Your task to perform on an android device: Open Youtube and go to "Your channel" Image 0: 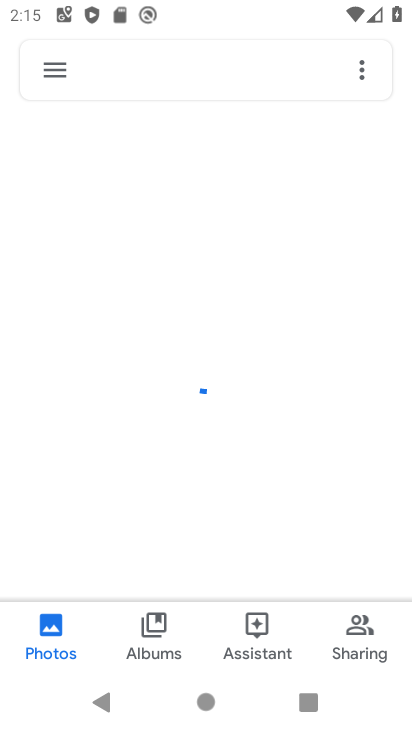
Step 0: press home button
Your task to perform on an android device: Open Youtube and go to "Your channel" Image 1: 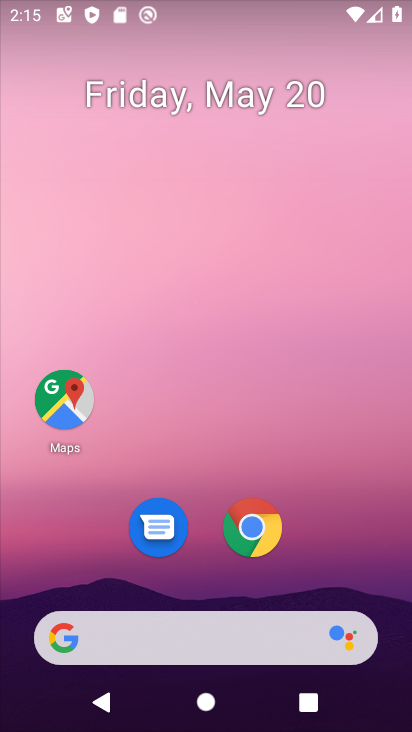
Step 1: drag from (267, 610) to (337, 195)
Your task to perform on an android device: Open Youtube and go to "Your channel" Image 2: 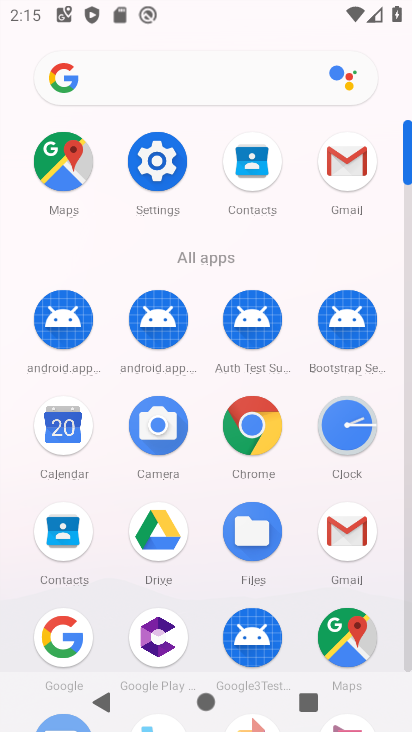
Step 2: drag from (246, 593) to (324, 114)
Your task to perform on an android device: Open Youtube and go to "Your channel" Image 3: 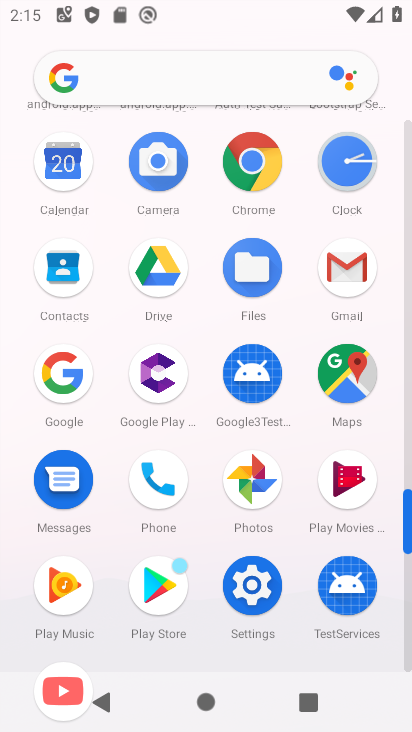
Step 3: click (51, 676)
Your task to perform on an android device: Open Youtube and go to "Your channel" Image 4: 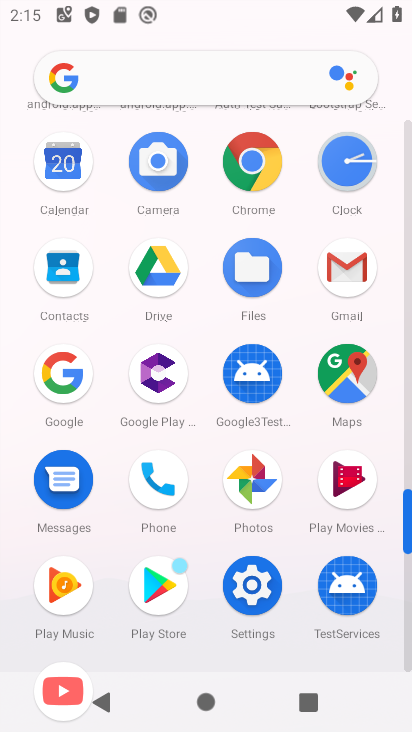
Step 4: click (74, 673)
Your task to perform on an android device: Open Youtube and go to "Your channel" Image 5: 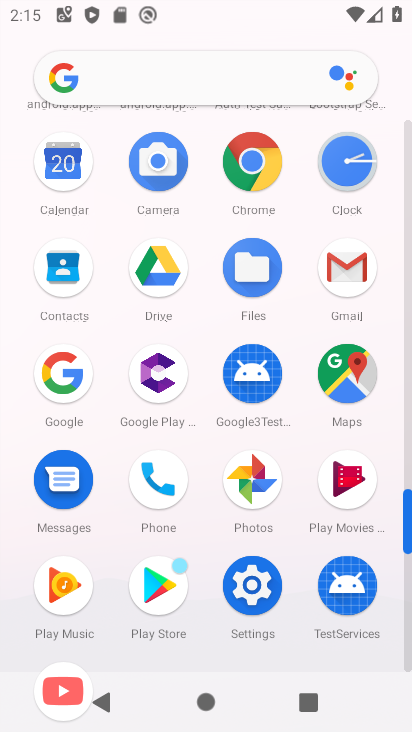
Step 5: click (71, 669)
Your task to perform on an android device: Open Youtube and go to "Your channel" Image 6: 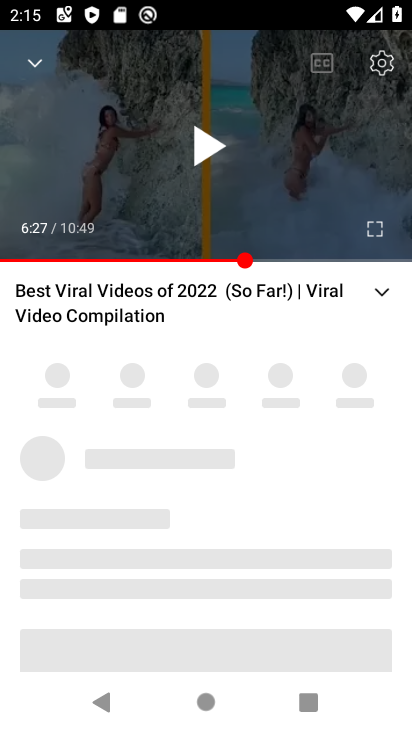
Step 6: drag from (275, 161) to (308, 538)
Your task to perform on an android device: Open Youtube and go to "Your channel" Image 7: 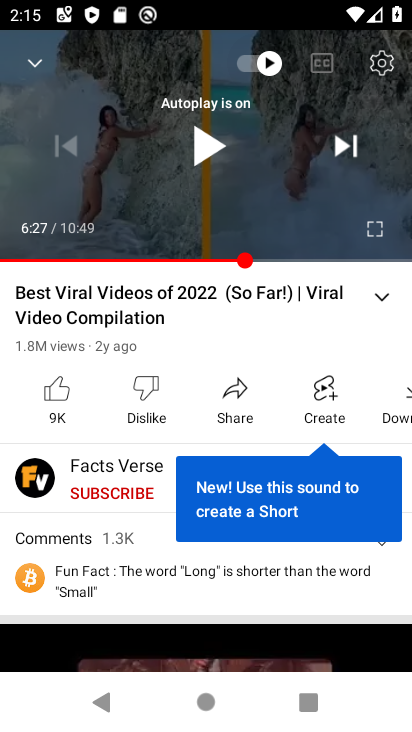
Step 7: drag from (307, 200) to (395, 661)
Your task to perform on an android device: Open Youtube and go to "Your channel" Image 8: 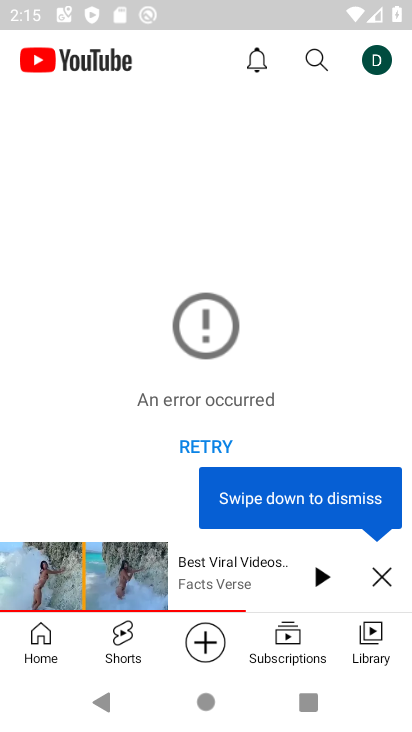
Step 8: click (374, 576)
Your task to perform on an android device: Open Youtube and go to "Your channel" Image 9: 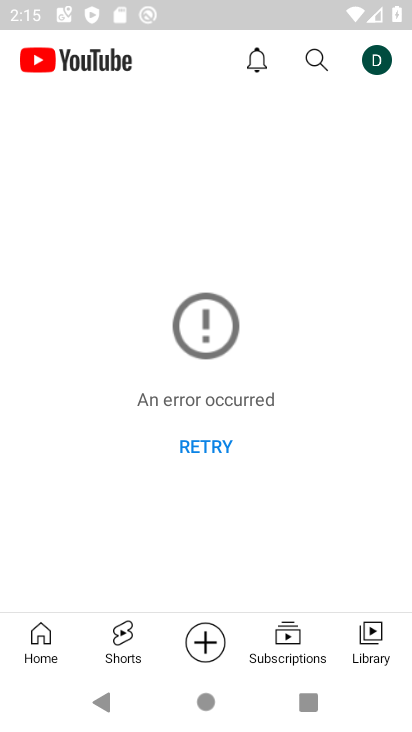
Step 9: click (384, 65)
Your task to perform on an android device: Open Youtube and go to "Your channel" Image 10: 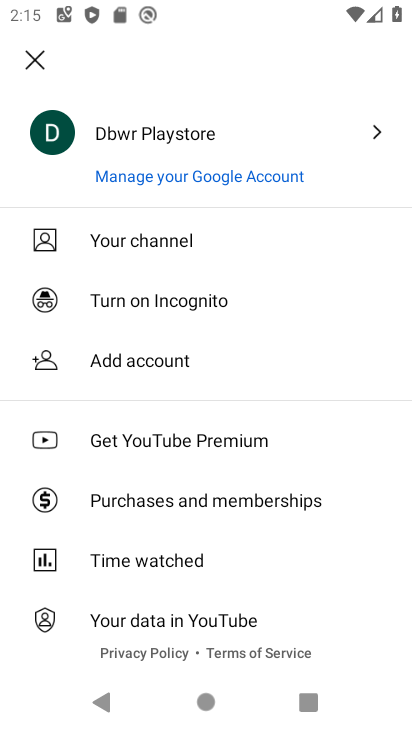
Step 10: click (164, 246)
Your task to perform on an android device: Open Youtube and go to "Your channel" Image 11: 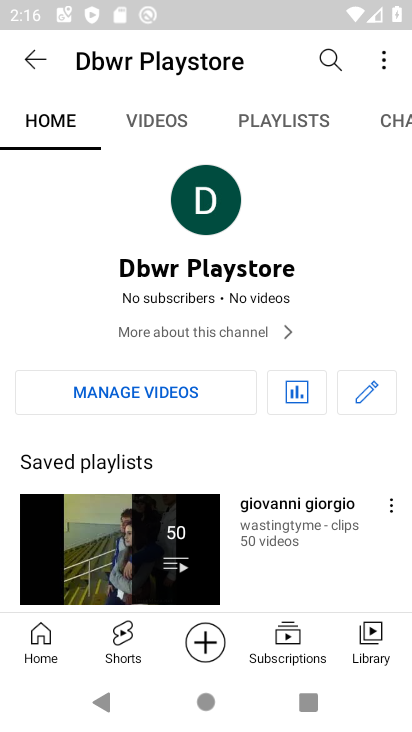
Step 11: task complete